Your task to perform on an android device: change your default location settings in chrome Image 0: 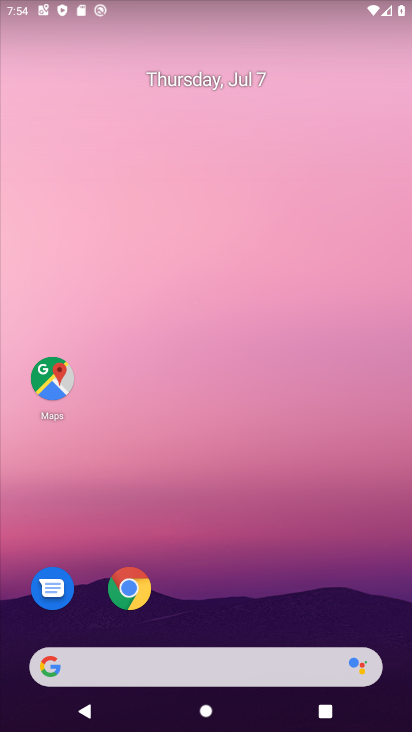
Step 0: drag from (192, 612) to (310, 2)
Your task to perform on an android device: change your default location settings in chrome Image 1: 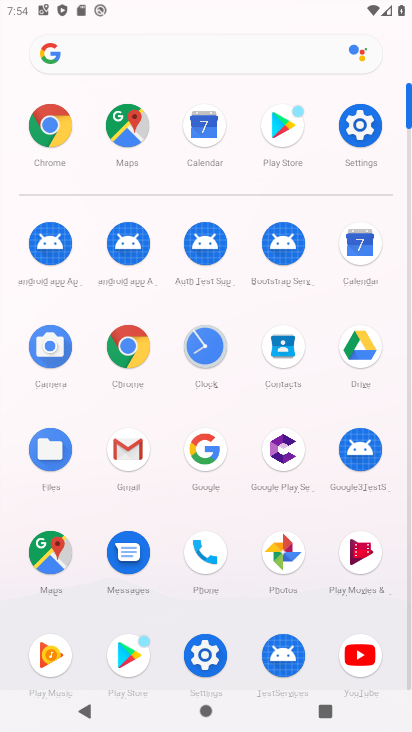
Step 1: click (53, 139)
Your task to perform on an android device: change your default location settings in chrome Image 2: 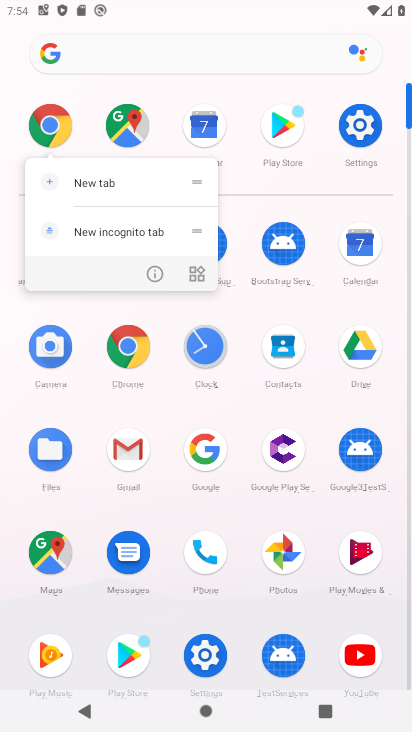
Step 2: click (150, 268)
Your task to perform on an android device: change your default location settings in chrome Image 3: 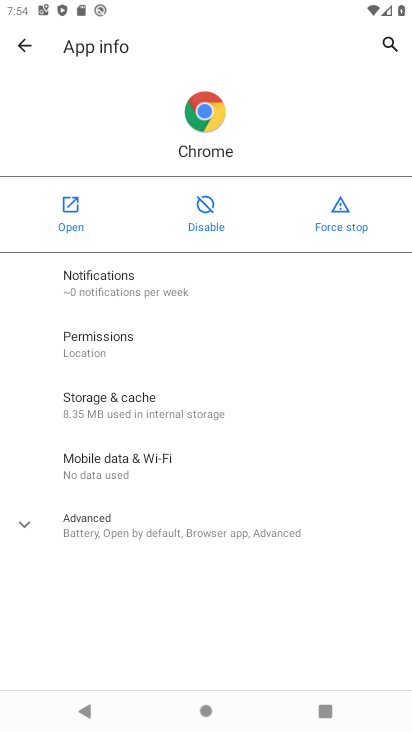
Step 3: click (59, 217)
Your task to perform on an android device: change your default location settings in chrome Image 4: 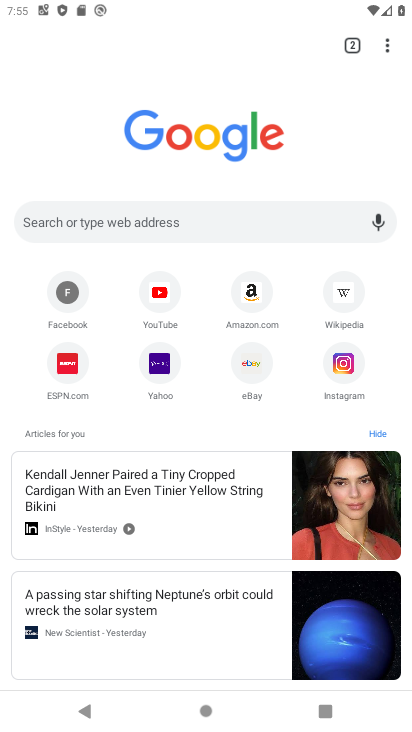
Step 4: drag from (393, 45) to (260, 377)
Your task to perform on an android device: change your default location settings in chrome Image 5: 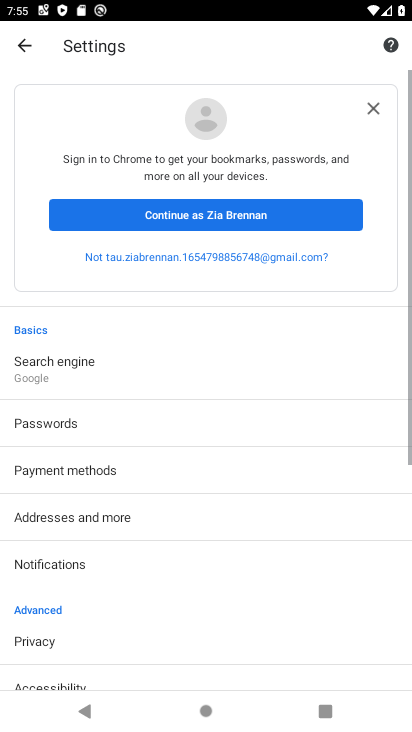
Step 5: drag from (144, 616) to (210, 271)
Your task to perform on an android device: change your default location settings in chrome Image 6: 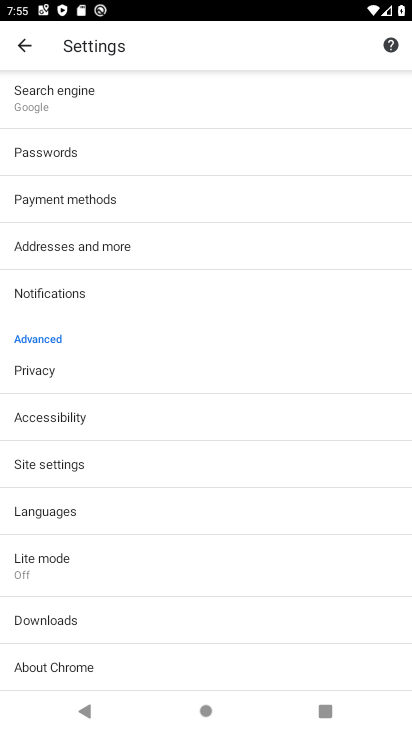
Step 6: drag from (233, 638) to (197, 141)
Your task to perform on an android device: change your default location settings in chrome Image 7: 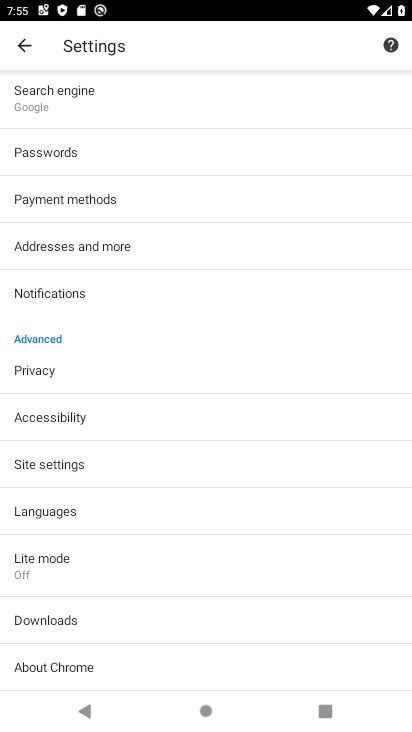
Step 7: click (74, 502)
Your task to perform on an android device: change your default location settings in chrome Image 8: 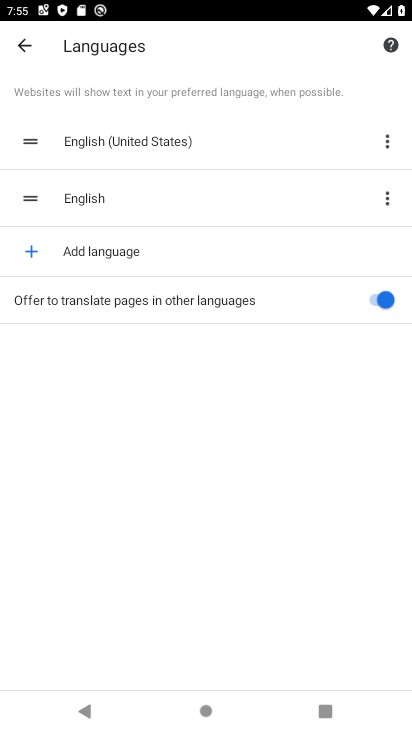
Step 8: click (18, 41)
Your task to perform on an android device: change your default location settings in chrome Image 9: 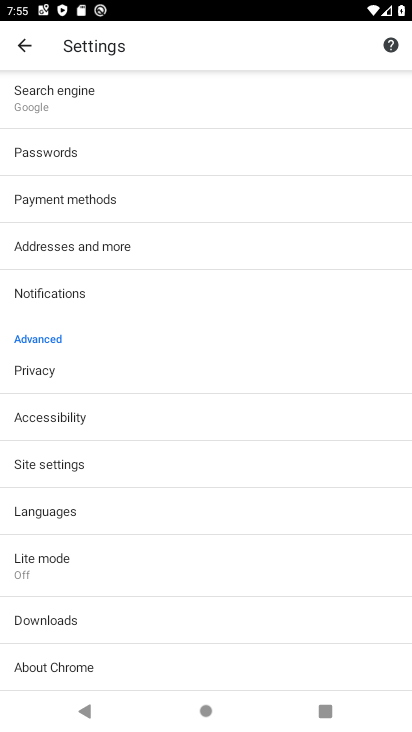
Step 9: click (88, 486)
Your task to perform on an android device: change your default location settings in chrome Image 10: 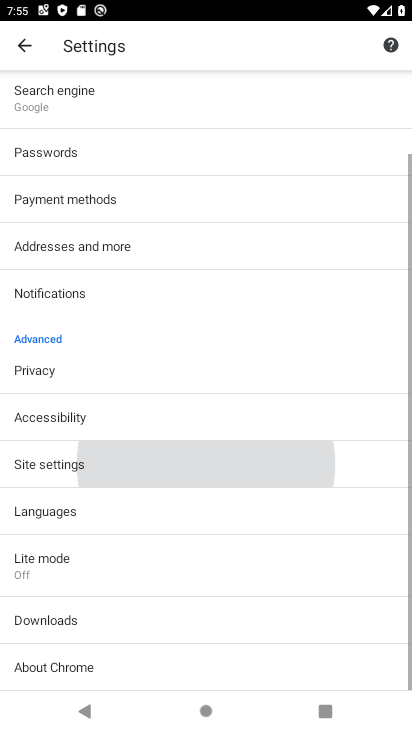
Step 10: click (87, 486)
Your task to perform on an android device: change your default location settings in chrome Image 11: 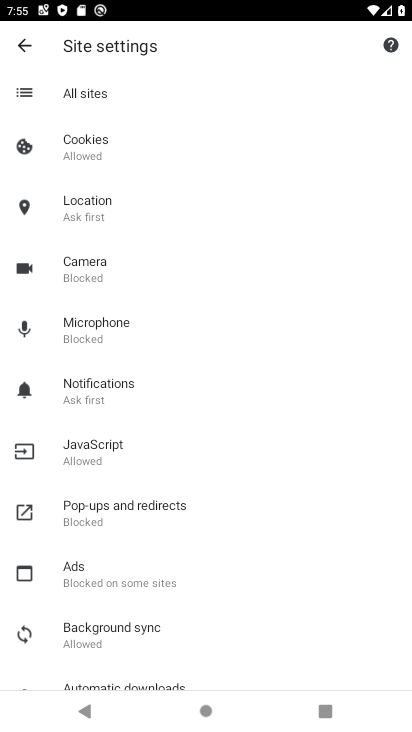
Step 11: click (103, 197)
Your task to perform on an android device: change your default location settings in chrome Image 12: 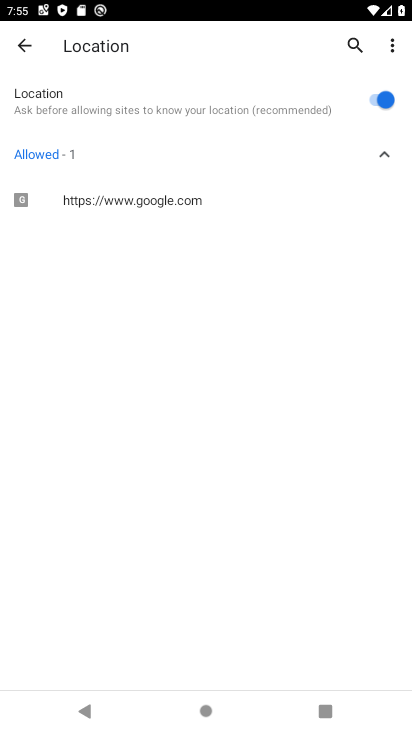
Step 12: task complete